Your task to perform on an android device: turn on sleep mode Image 0: 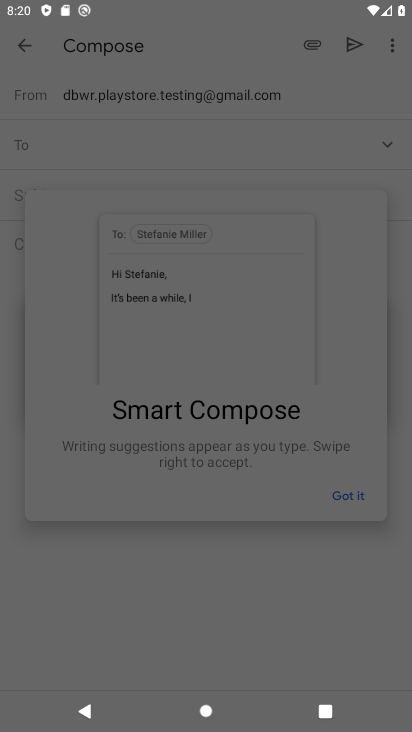
Step 0: press home button
Your task to perform on an android device: turn on sleep mode Image 1: 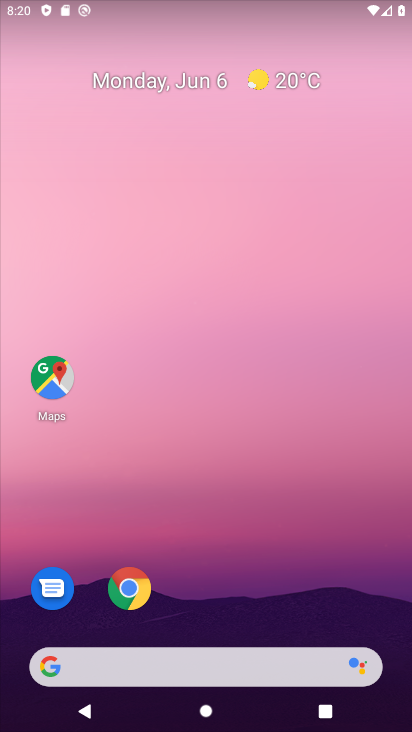
Step 1: drag from (171, 626) to (288, 85)
Your task to perform on an android device: turn on sleep mode Image 2: 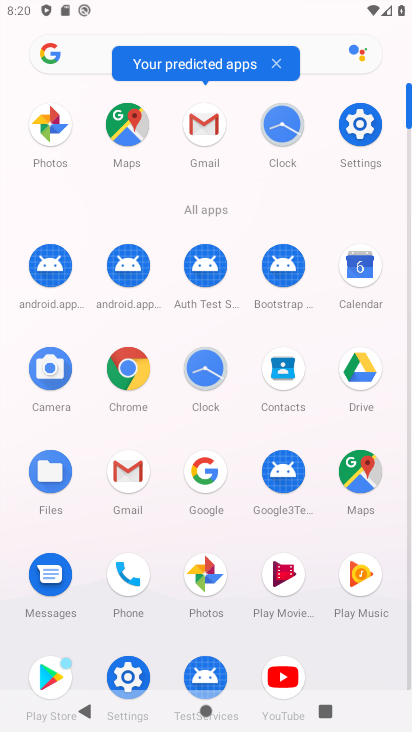
Step 2: drag from (170, 629) to (224, 326)
Your task to perform on an android device: turn on sleep mode Image 3: 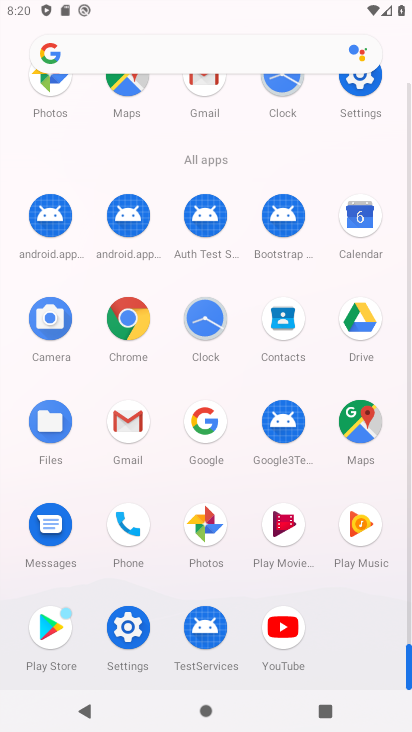
Step 3: click (118, 636)
Your task to perform on an android device: turn on sleep mode Image 4: 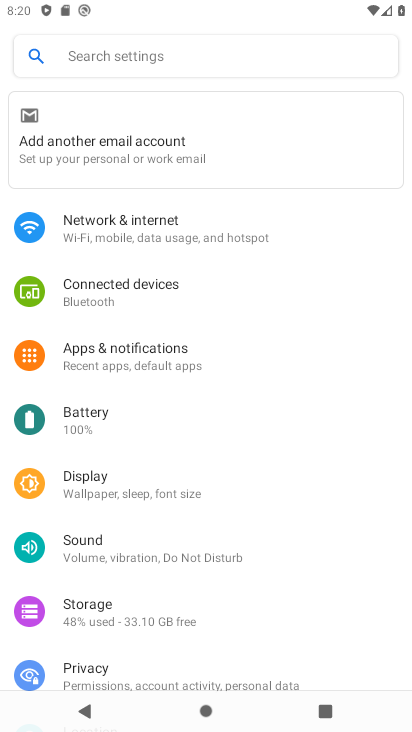
Step 4: click (115, 481)
Your task to perform on an android device: turn on sleep mode Image 5: 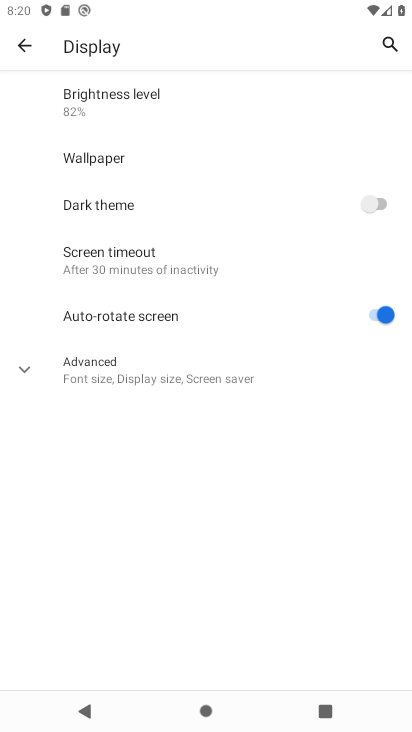
Step 5: click (167, 377)
Your task to perform on an android device: turn on sleep mode Image 6: 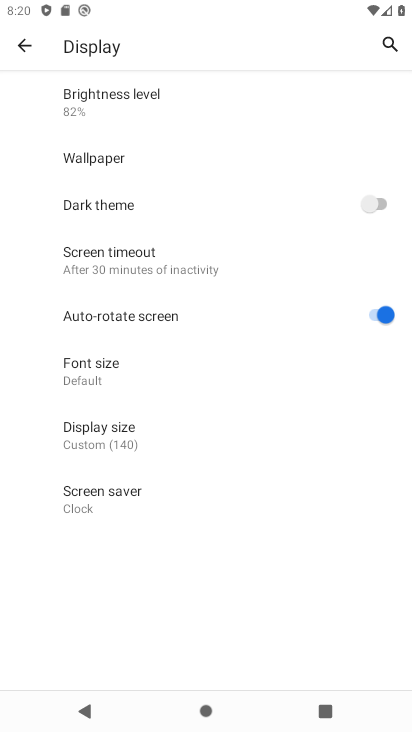
Step 6: task complete